Your task to perform on an android device: empty trash in the gmail app Image 0: 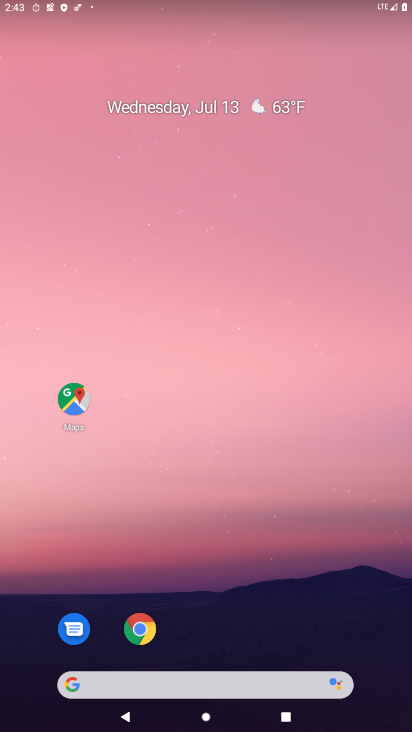
Step 0: drag from (185, 643) to (270, 231)
Your task to perform on an android device: empty trash in the gmail app Image 1: 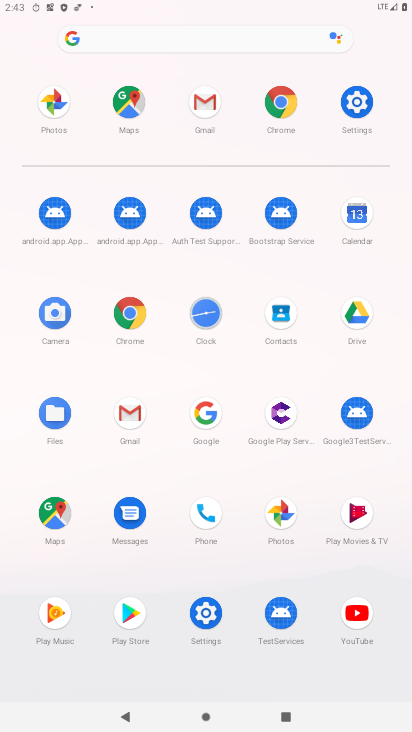
Step 1: click (131, 418)
Your task to perform on an android device: empty trash in the gmail app Image 2: 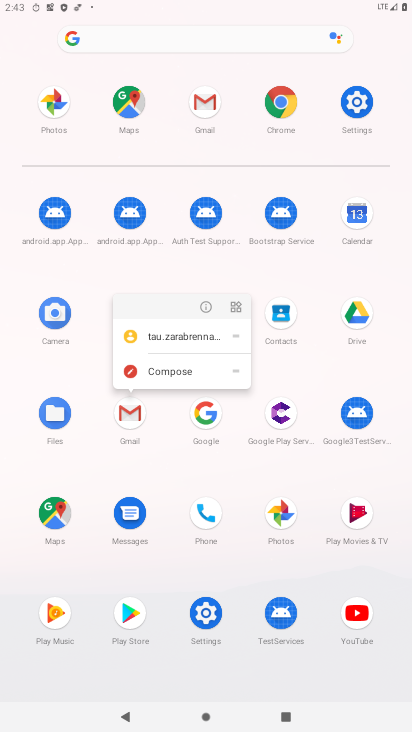
Step 2: click (207, 300)
Your task to perform on an android device: empty trash in the gmail app Image 3: 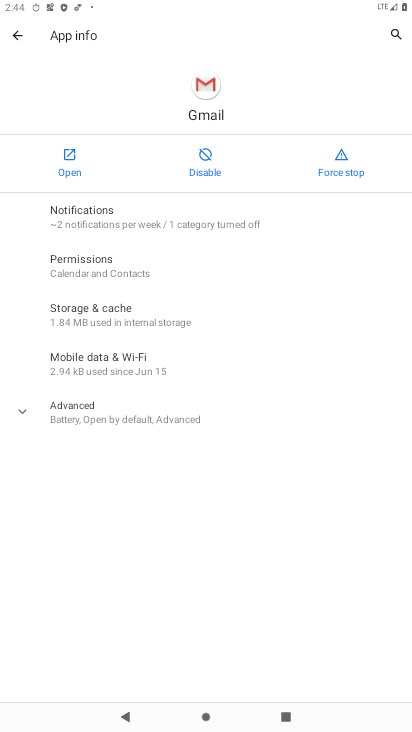
Step 3: click (70, 152)
Your task to perform on an android device: empty trash in the gmail app Image 4: 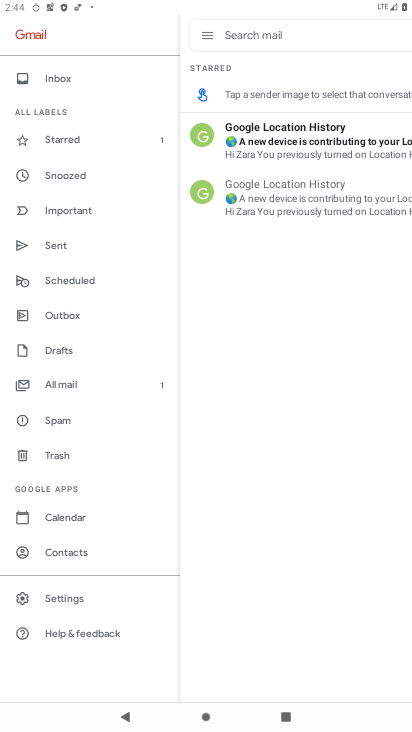
Step 4: click (66, 451)
Your task to perform on an android device: empty trash in the gmail app Image 5: 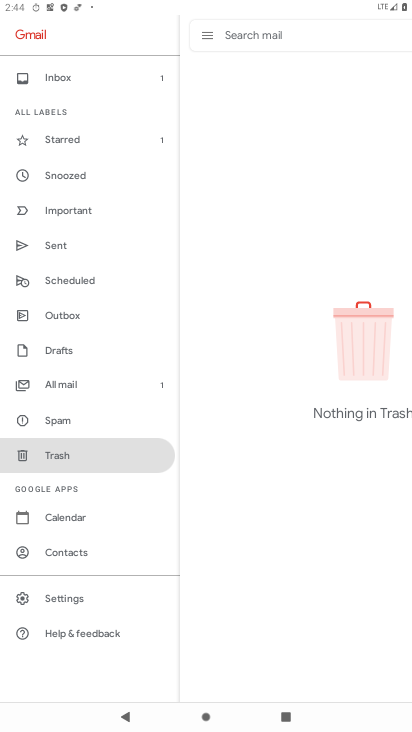
Step 5: drag from (250, 533) to (296, 260)
Your task to perform on an android device: empty trash in the gmail app Image 6: 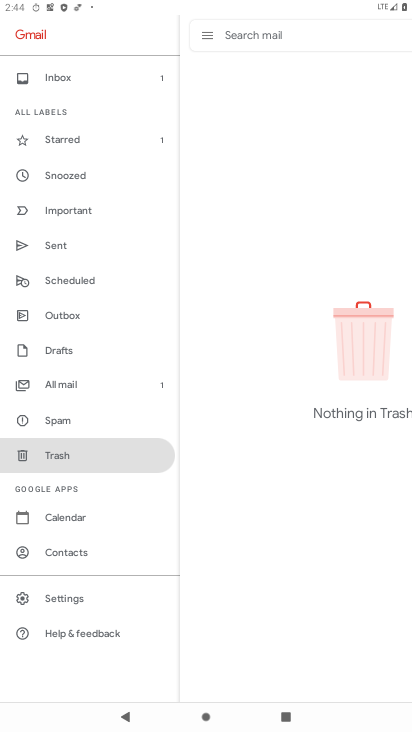
Step 6: click (205, 47)
Your task to perform on an android device: empty trash in the gmail app Image 7: 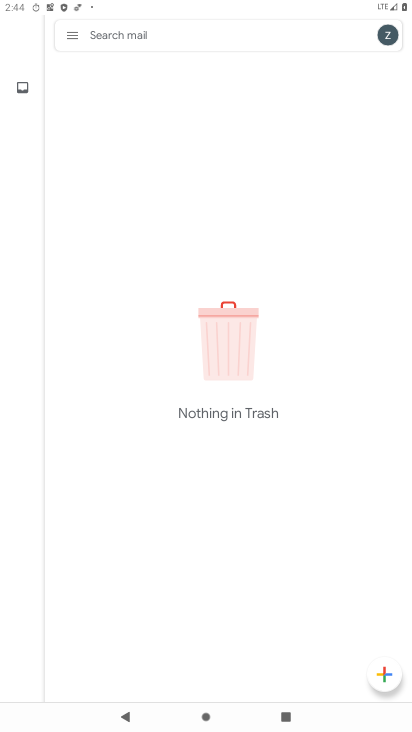
Step 7: task complete